Your task to perform on an android device: Go to Yahoo.com Image 0: 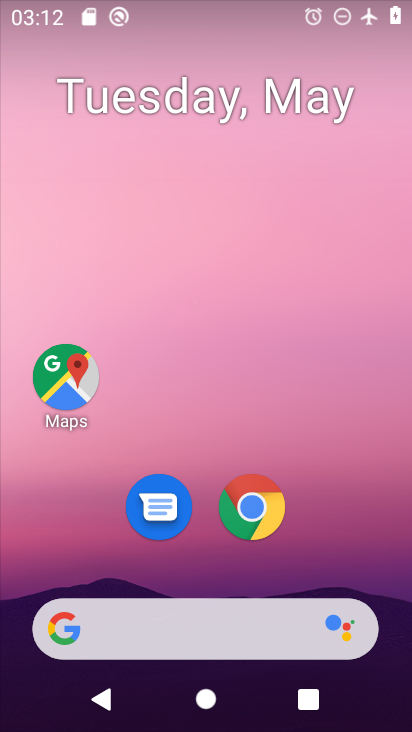
Step 0: click (248, 520)
Your task to perform on an android device: Go to Yahoo.com Image 1: 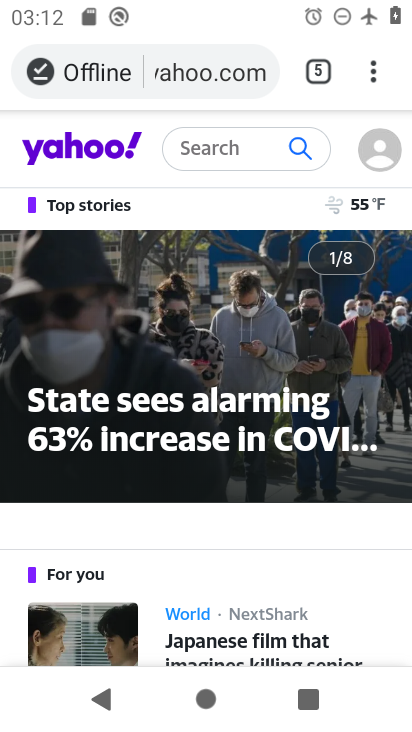
Step 1: task complete